Your task to perform on an android device: manage bookmarks in the chrome app Image 0: 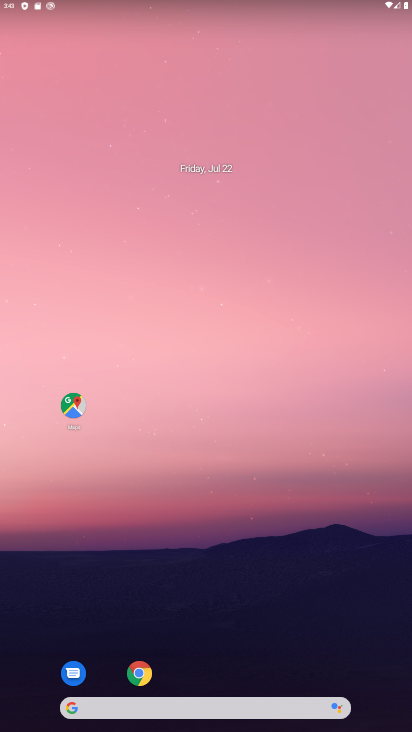
Step 0: click (160, 700)
Your task to perform on an android device: manage bookmarks in the chrome app Image 1: 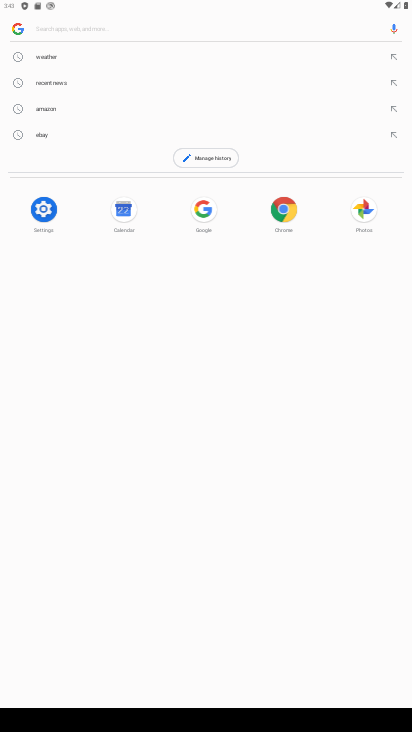
Step 1: press back button
Your task to perform on an android device: manage bookmarks in the chrome app Image 2: 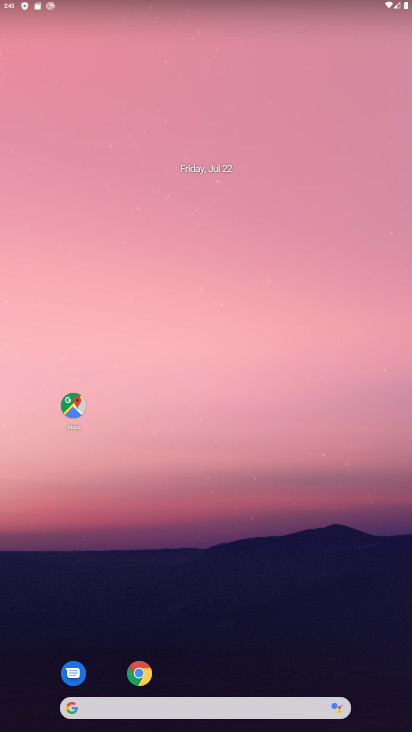
Step 2: click (139, 676)
Your task to perform on an android device: manage bookmarks in the chrome app Image 3: 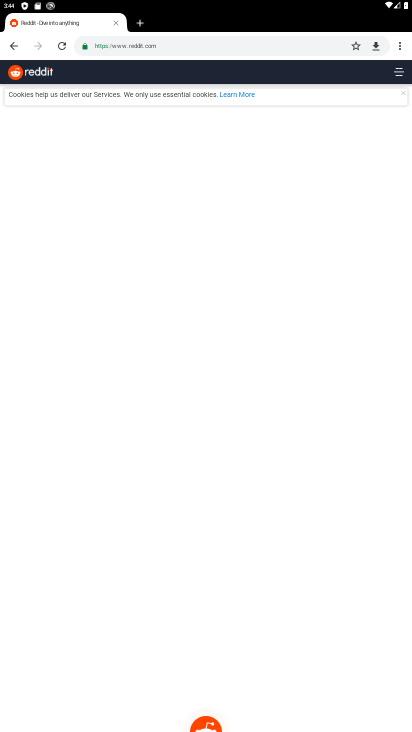
Step 3: click (396, 44)
Your task to perform on an android device: manage bookmarks in the chrome app Image 4: 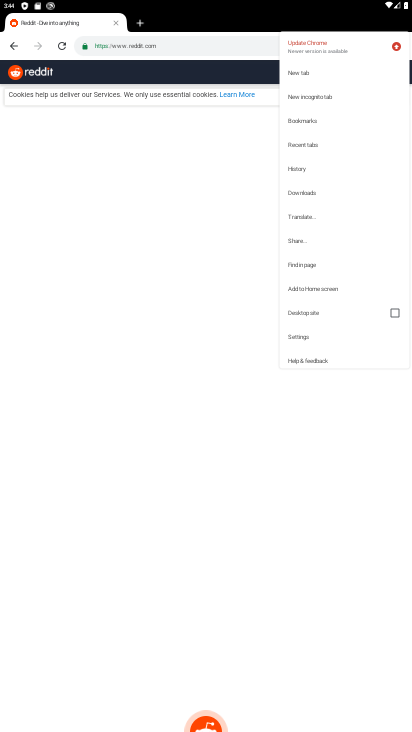
Step 4: click (305, 117)
Your task to perform on an android device: manage bookmarks in the chrome app Image 5: 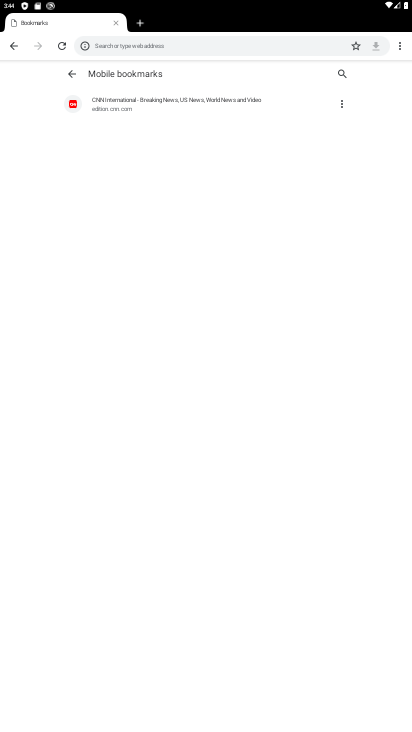
Step 5: task complete